Your task to perform on an android device: View the shopping cart on amazon. Add "jbl charge 4" to the cart on amazon Image 0: 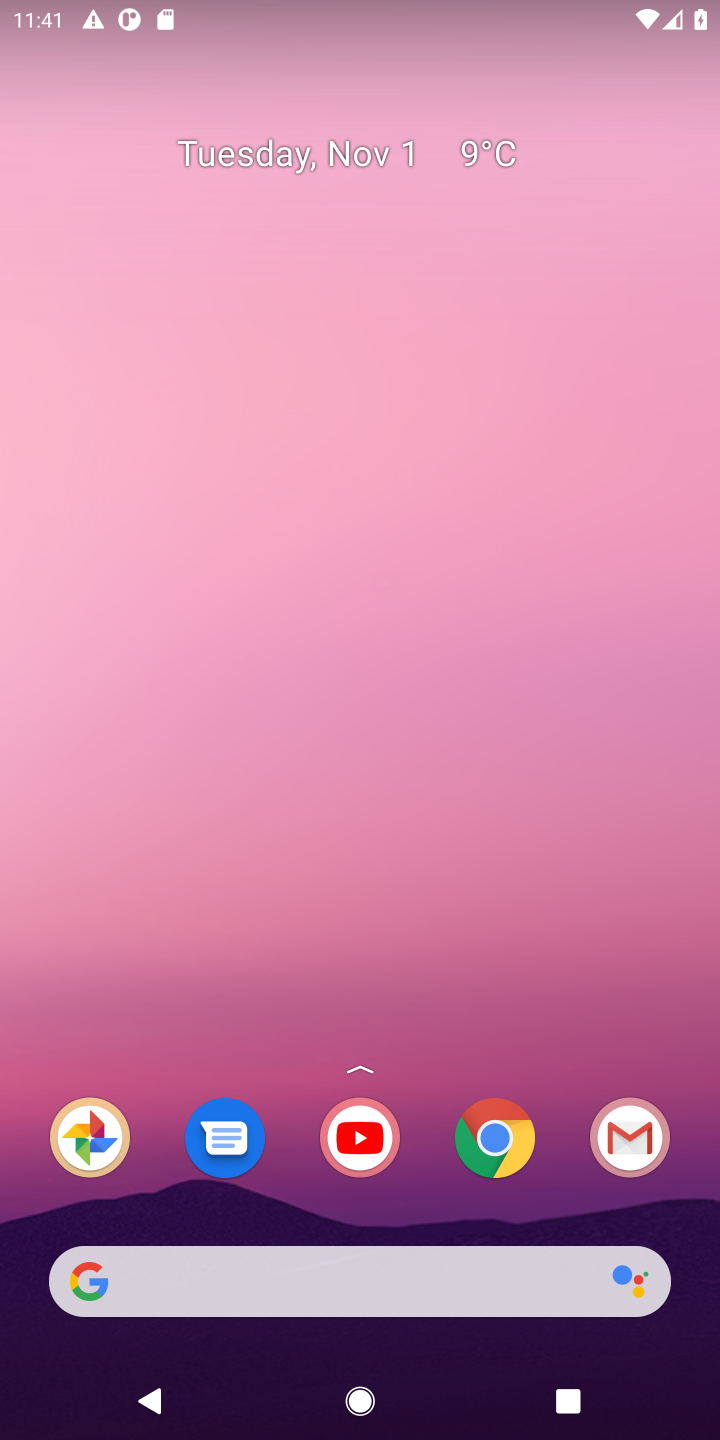
Step 0: click (318, 1279)
Your task to perform on an android device: View the shopping cart on amazon. Add "jbl charge 4" to the cart on amazon Image 1: 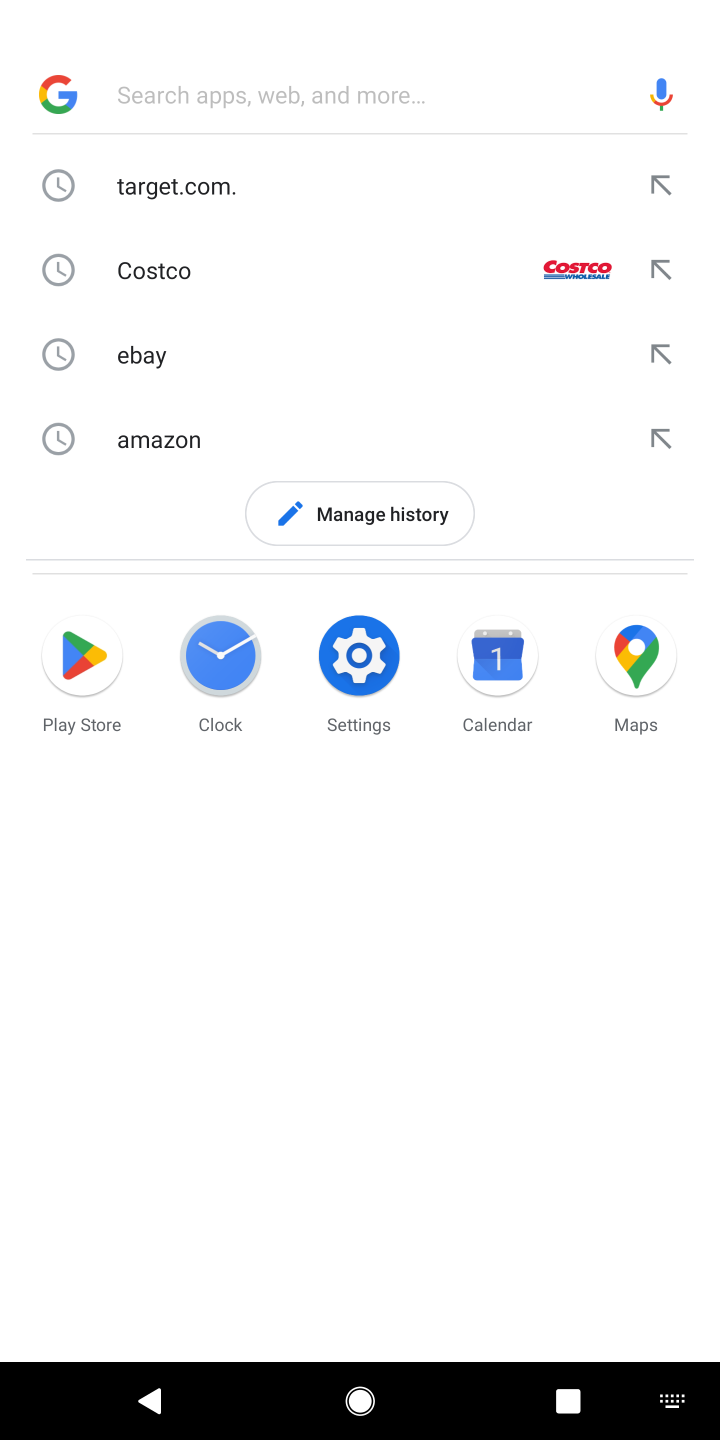
Step 1: type "amazon"
Your task to perform on an android device: View the shopping cart on amazon. Add "jbl charge 4" to the cart on amazon Image 2: 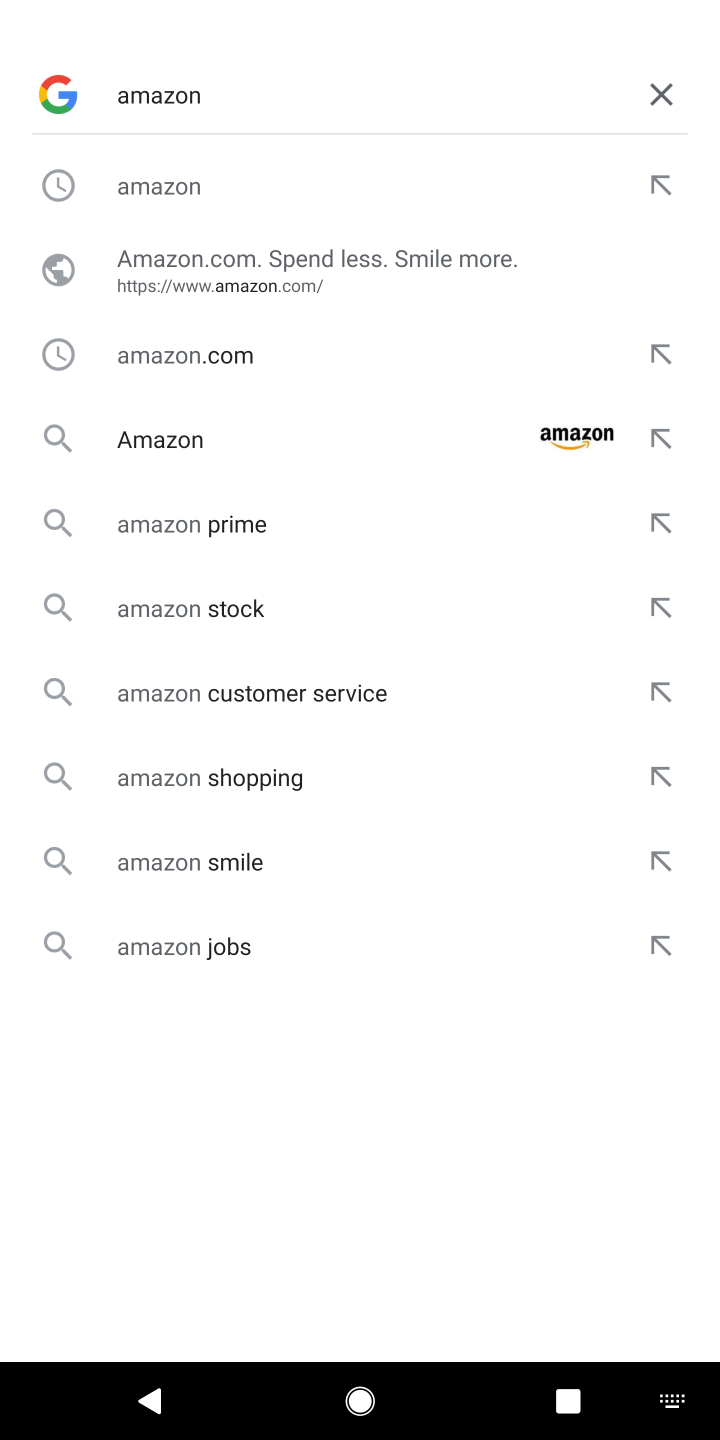
Step 2: click (108, 171)
Your task to perform on an android device: View the shopping cart on amazon. Add "jbl charge 4" to the cart on amazon Image 3: 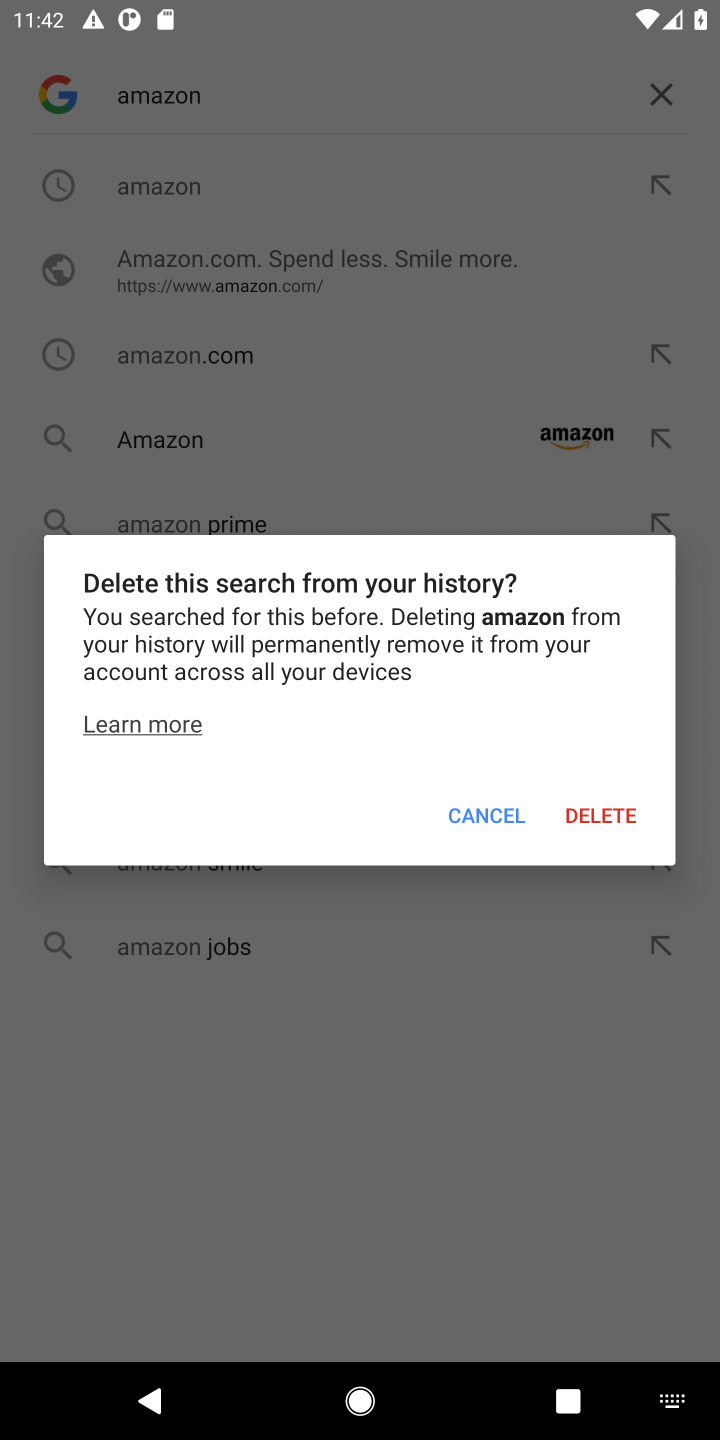
Step 3: click (437, 810)
Your task to perform on an android device: View the shopping cart on amazon. Add "jbl charge 4" to the cart on amazon Image 4: 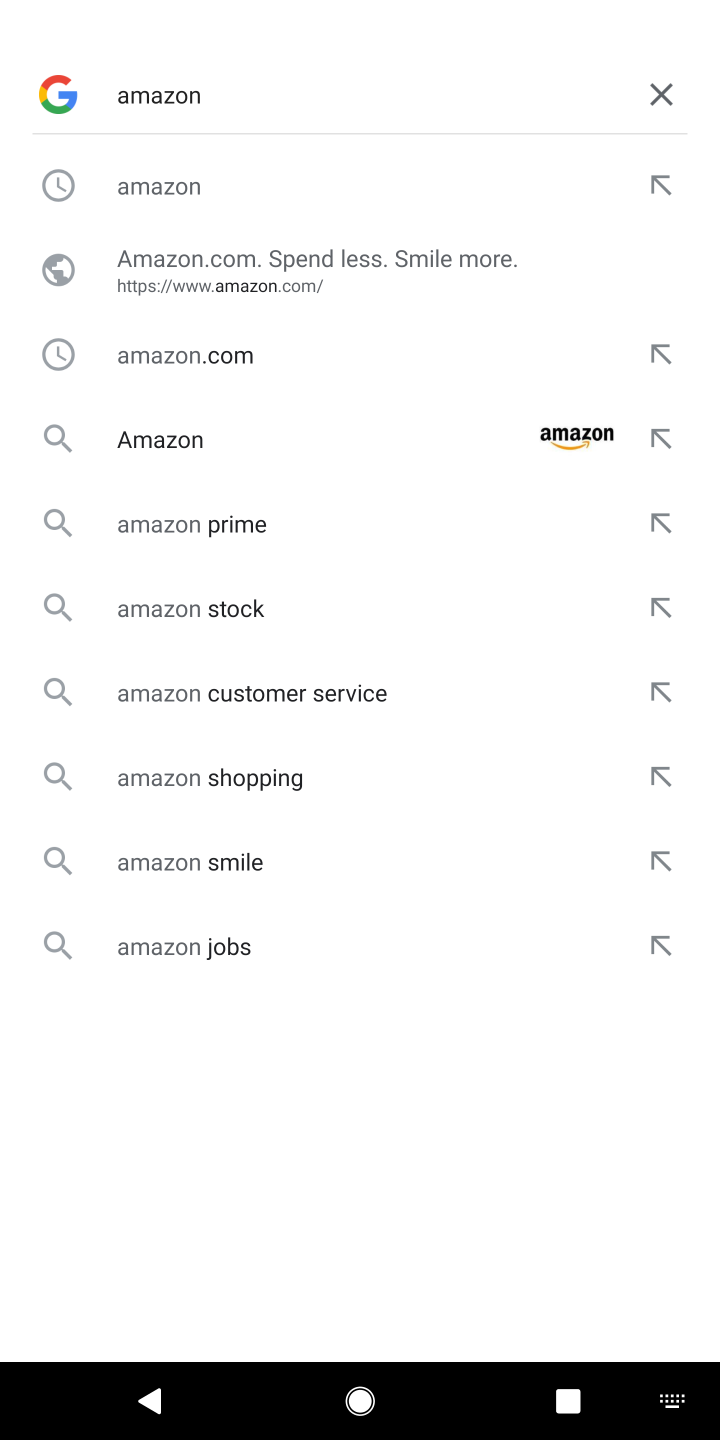
Step 4: click (229, 182)
Your task to perform on an android device: View the shopping cart on amazon. Add "jbl charge 4" to the cart on amazon Image 5: 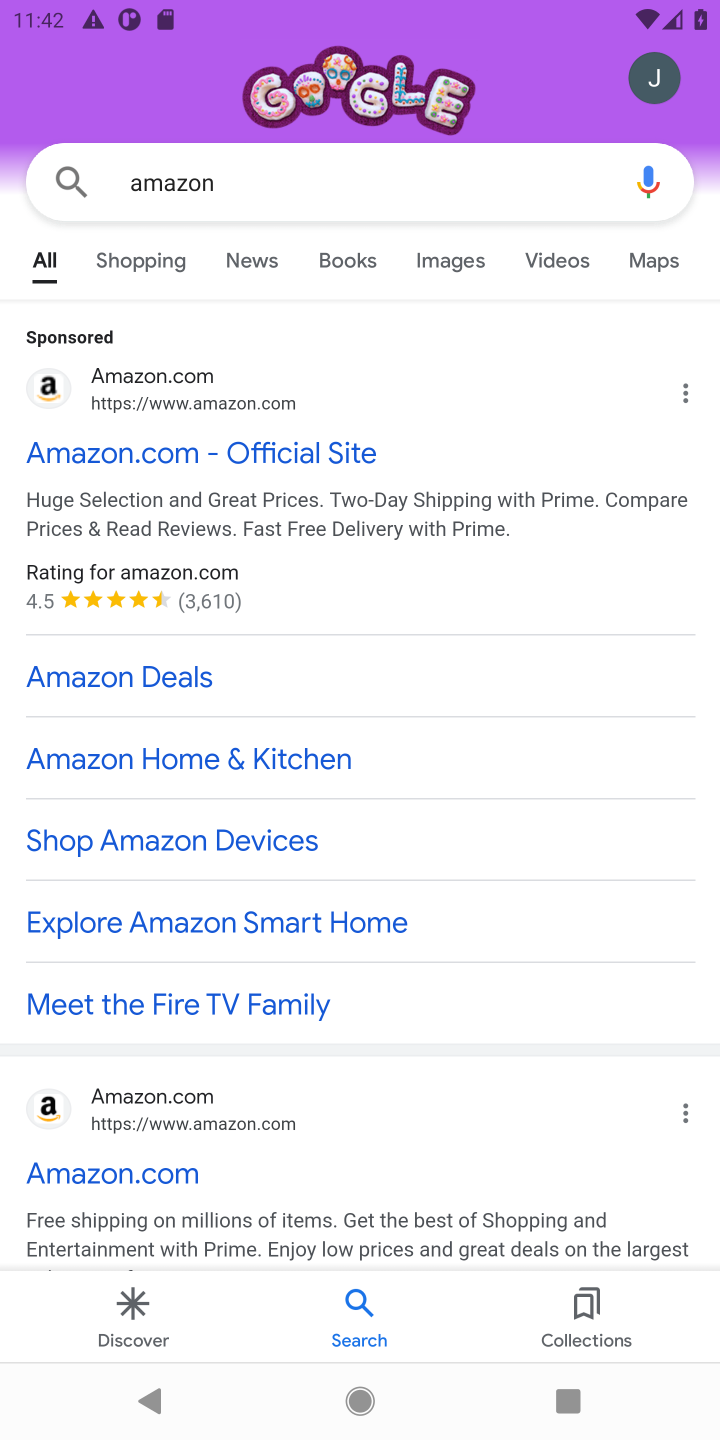
Step 5: click (172, 450)
Your task to perform on an android device: View the shopping cart on amazon. Add "jbl charge 4" to the cart on amazon Image 6: 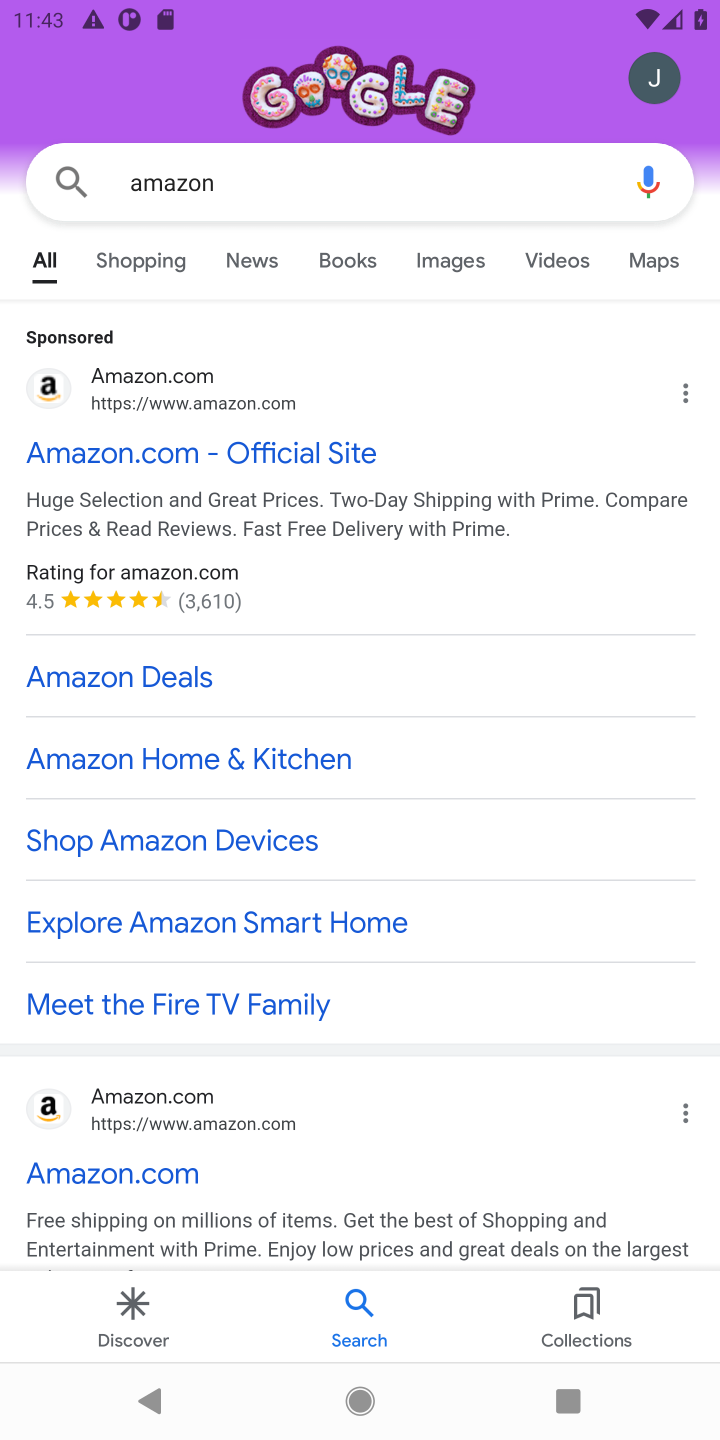
Step 6: click (172, 450)
Your task to perform on an android device: View the shopping cart on amazon. Add "jbl charge 4" to the cart on amazon Image 7: 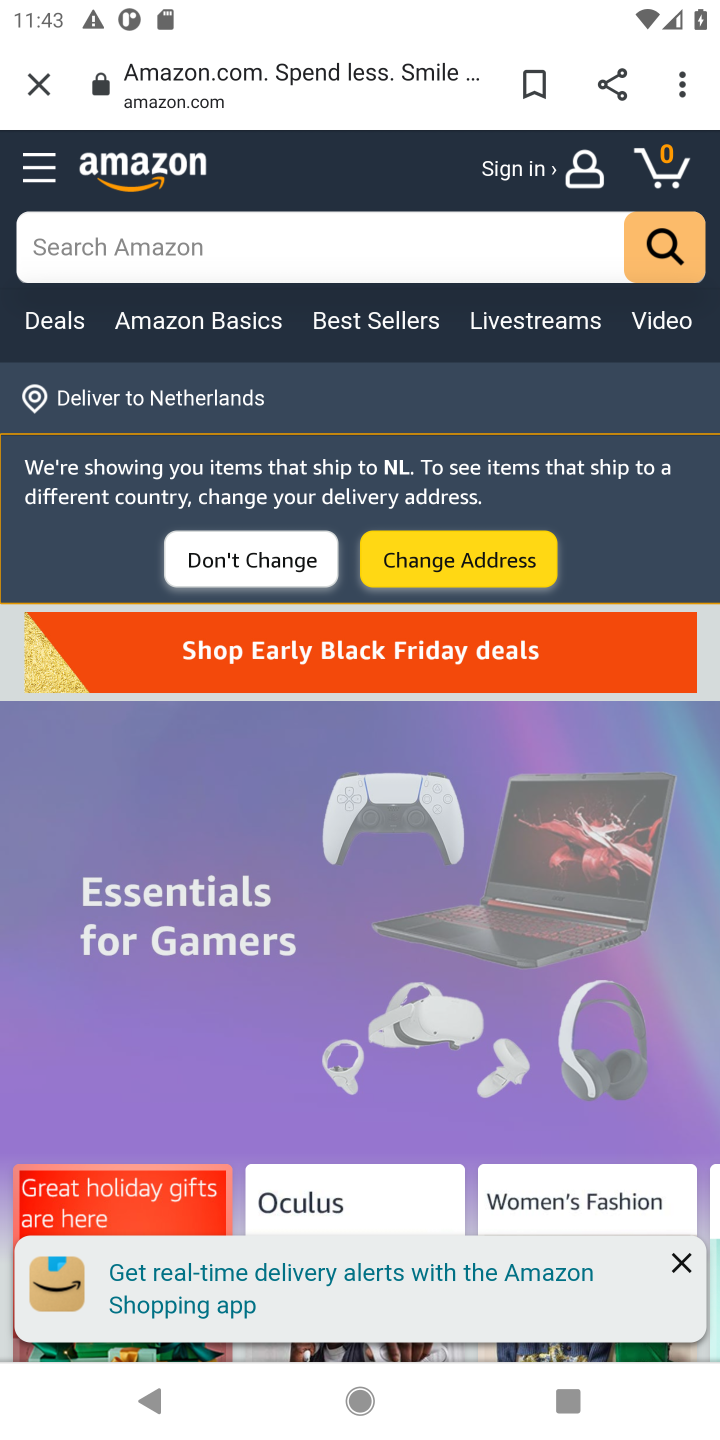
Step 7: click (199, 245)
Your task to perform on an android device: View the shopping cart on amazon. Add "jbl charge 4" to the cart on amazon Image 8: 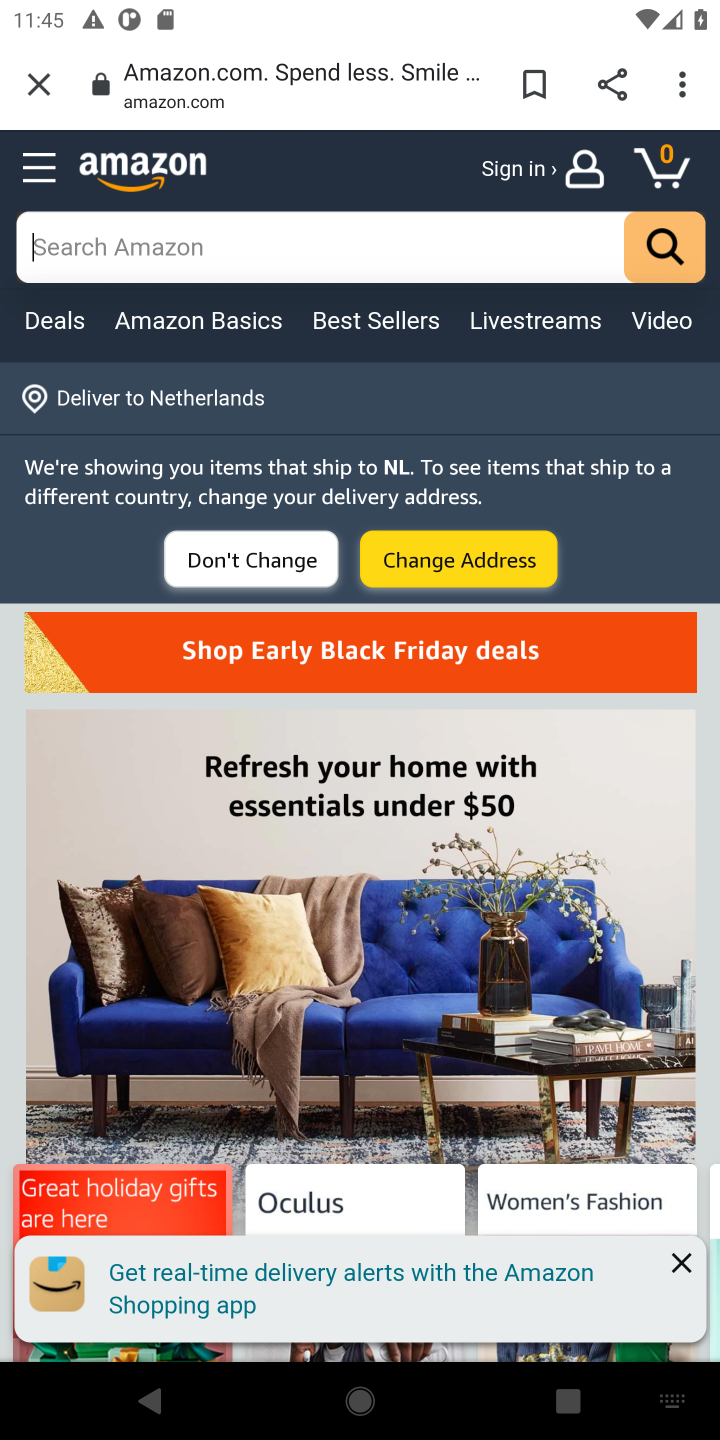
Step 8: type "jbl charge 4"
Your task to perform on an android device: View the shopping cart on amazon. Add "jbl charge 4" to the cart on amazon Image 9: 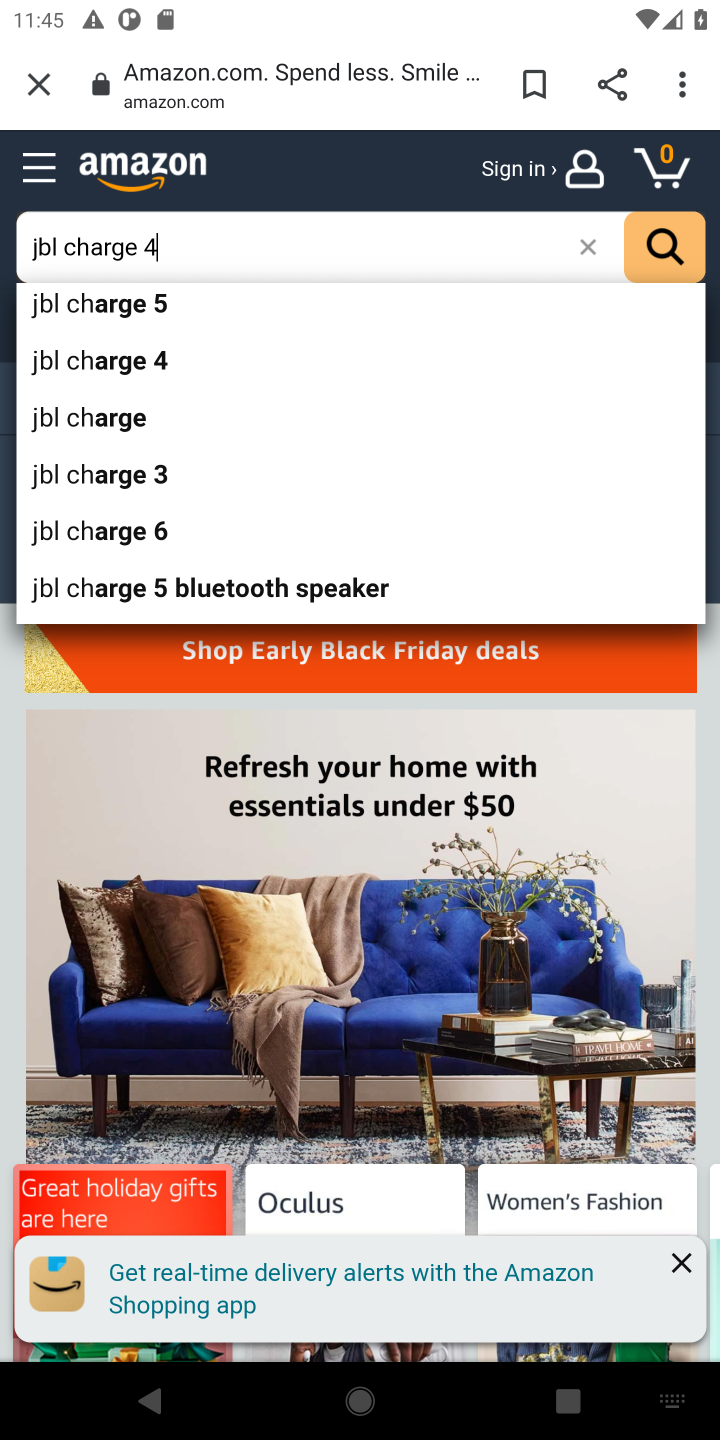
Step 9: type ""
Your task to perform on an android device: View the shopping cart on amazon. Add "jbl charge 4" to the cart on amazon Image 10: 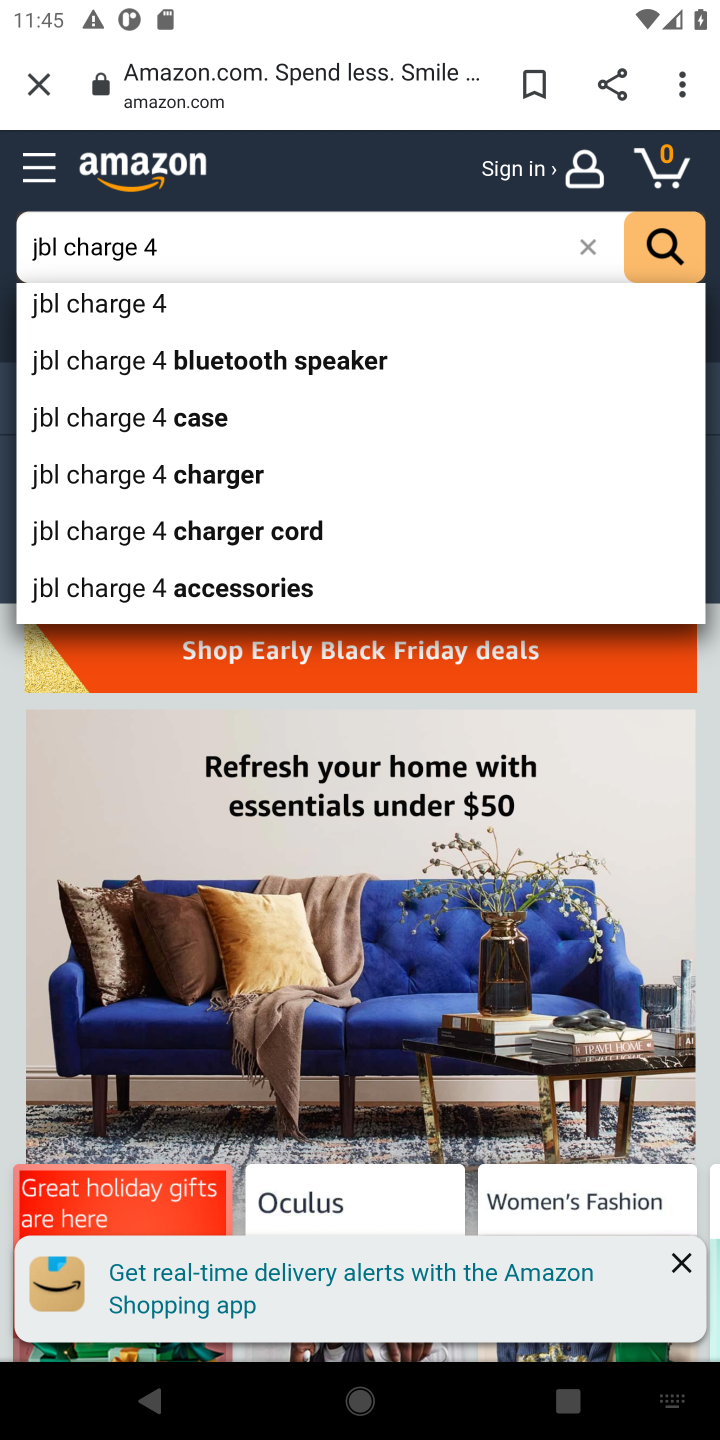
Step 10: click (152, 322)
Your task to perform on an android device: View the shopping cart on amazon. Add "jbl charge 4" to the cart on amazon Image 11: 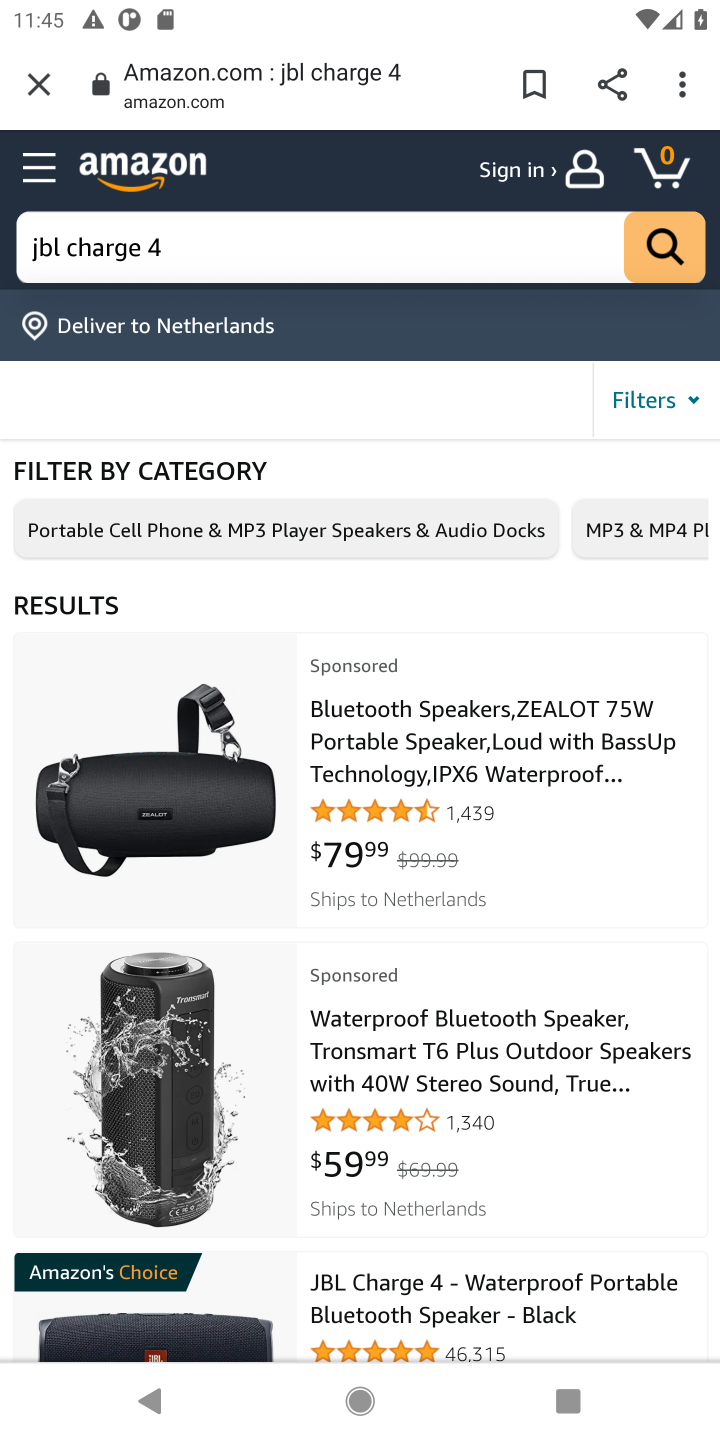
Step 11: click (538, 1305)
Your task to perform on an android device: View the shopping cart on amazon. Add "jbl charge 4" to the cart on amazon Image 12: 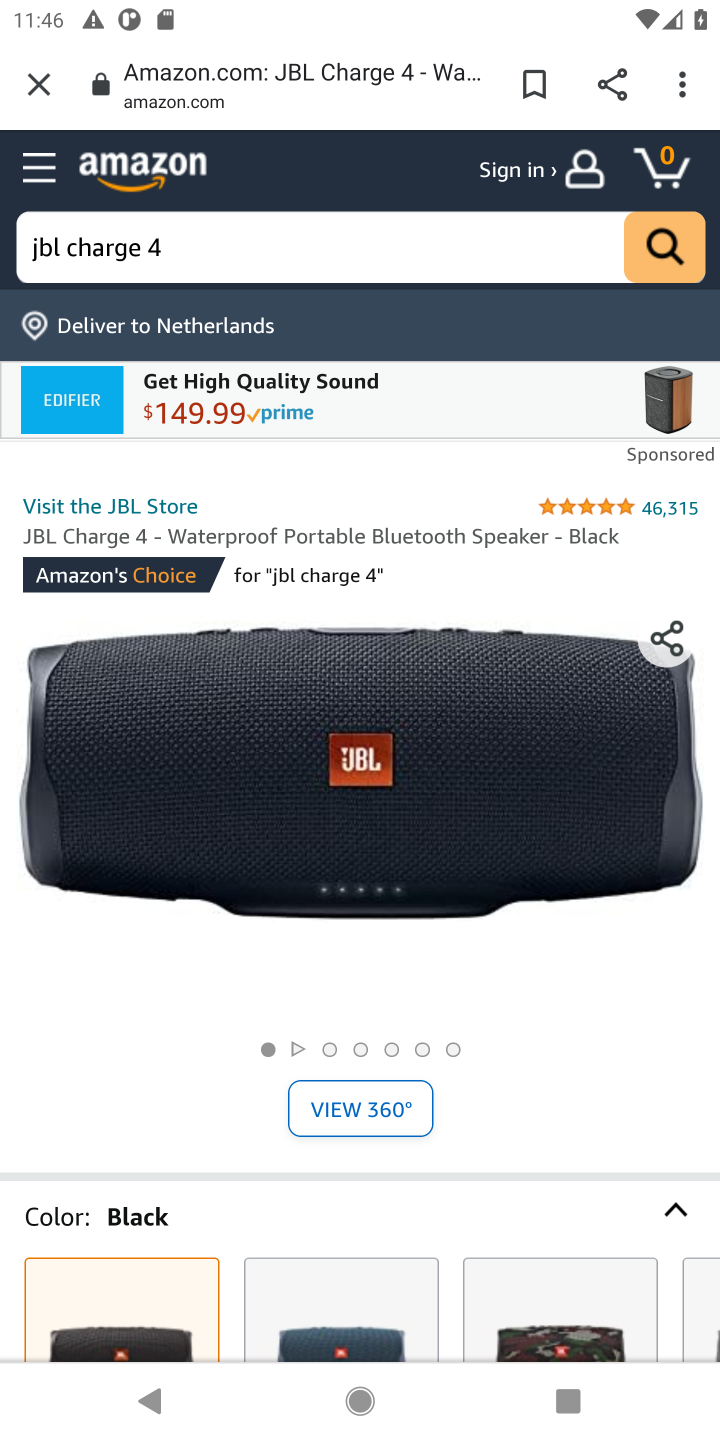
Step 12: drag from (463, 1168) to (482, 487)
Your task to perform on an android device: View the shopping cart on amazon. Add "jbl charge 4" to the cart on amazon Image 13: 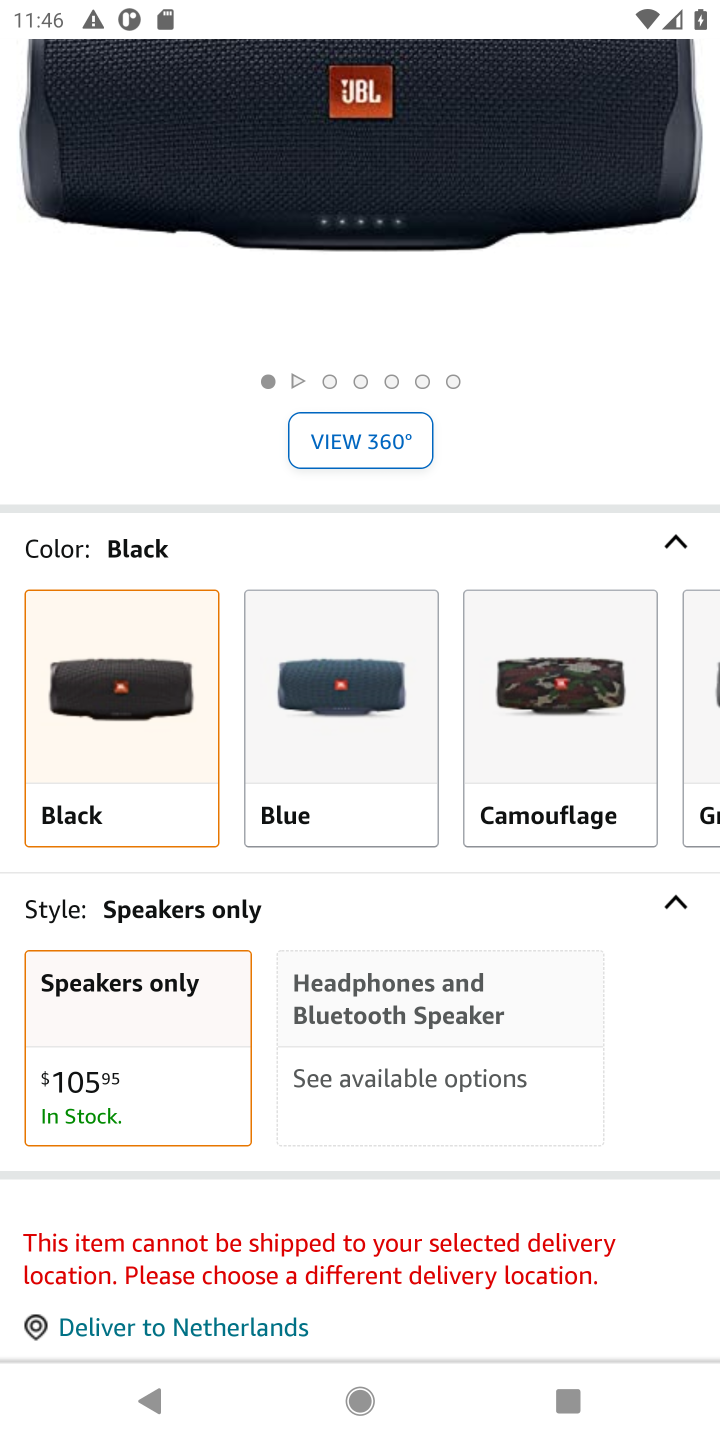
Step 13: drag from (463, 1099) to (509, 432)
Your task to perform on an android device: View the shopping cart on amazon. Add "jbl charge 4" to the cart on amazon Image 14: 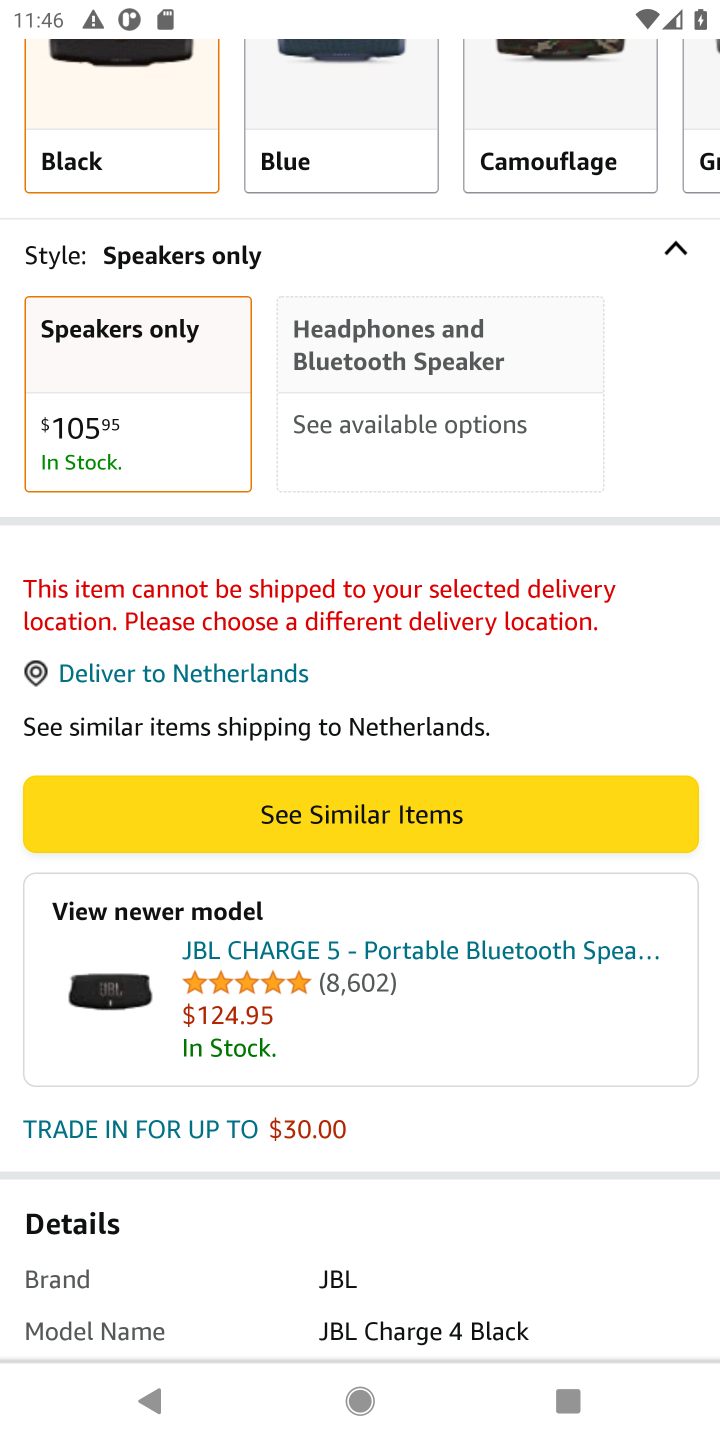
Step 14: click (397, 813)
Your task to perform on an android device: View the shopping cart on amazon. Add "jbl charge 4" to the cart on amazon Image 15: 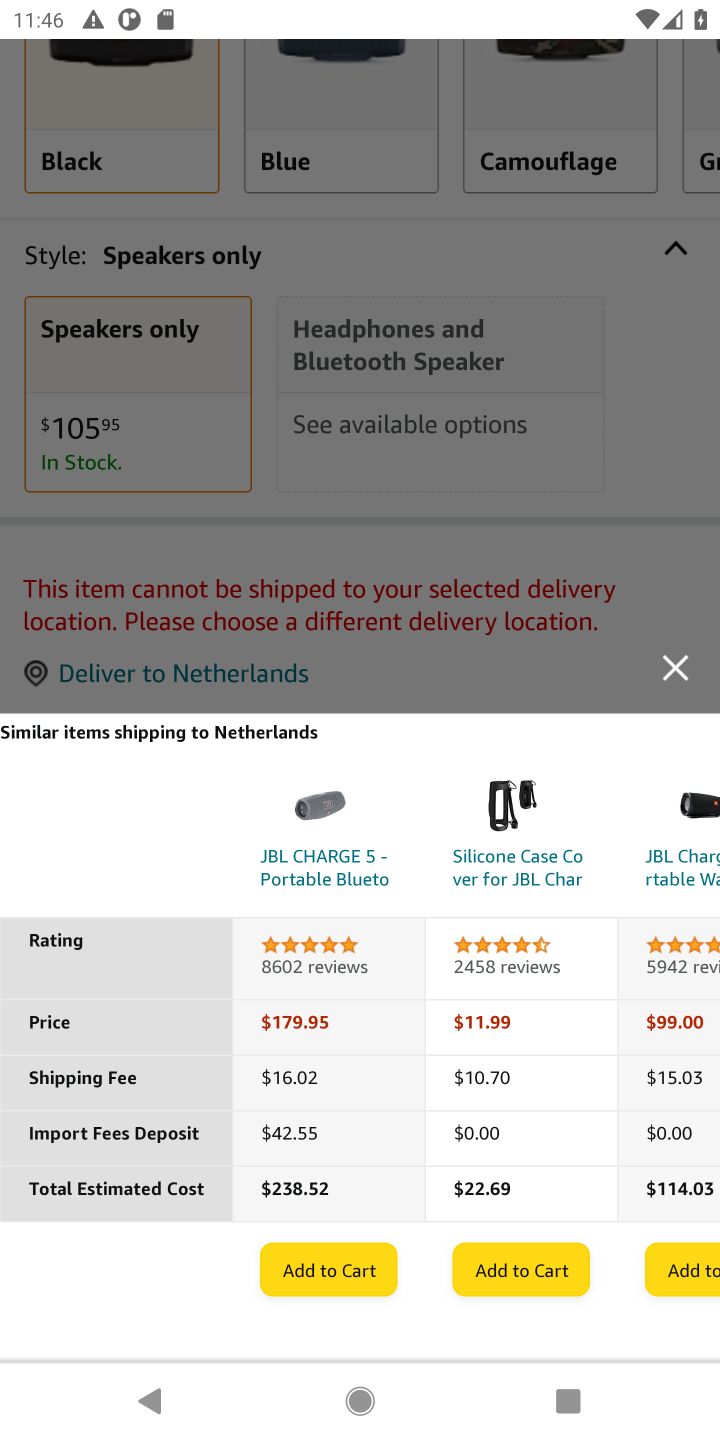
Step 15: drag from (415, 818) to (405, 545)
Your task to perform on an android device: View the shopping cart on amazon. Add "jbl charge 4" to the cart on amazon Image 16: 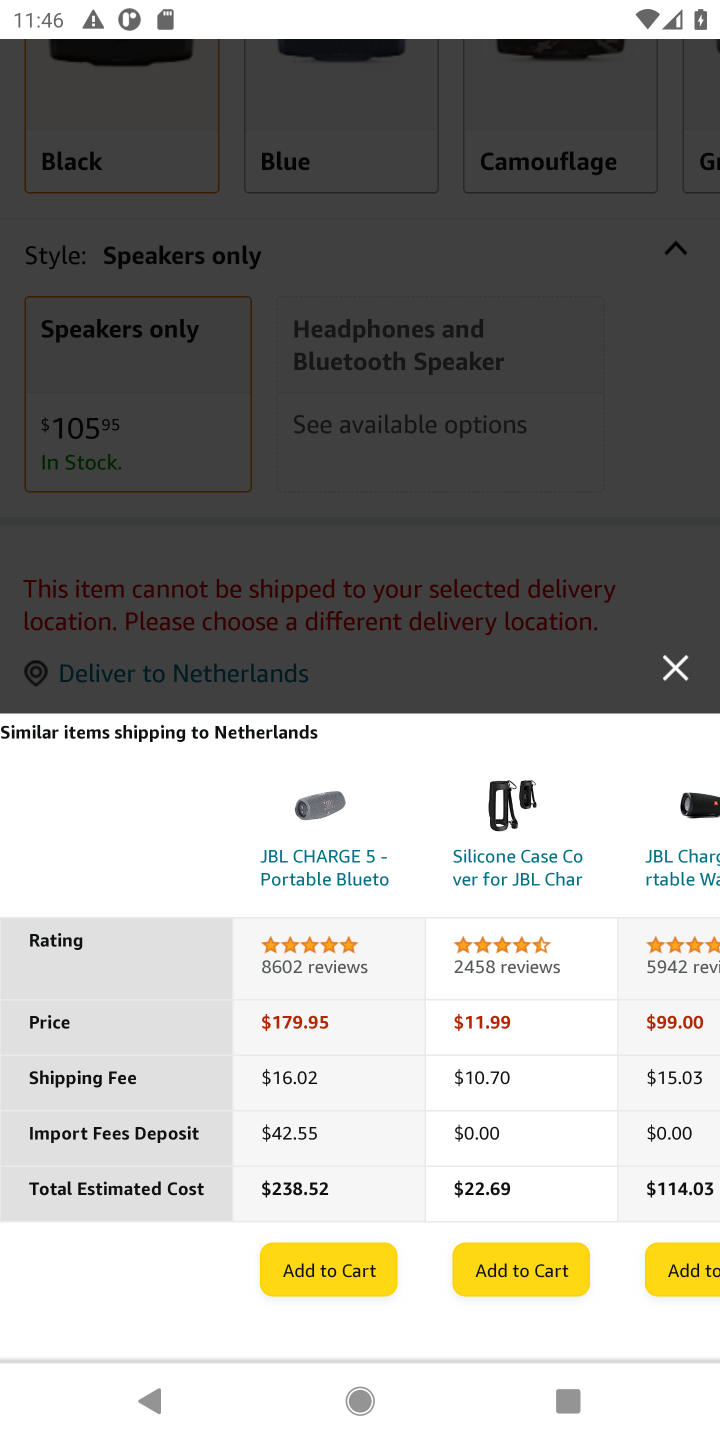
Step 16: click (673, 663)
Your task to perform on an android device: View the shopping cart on amazon. Add "jbl charge 4" to the cart on amazon Image 17: 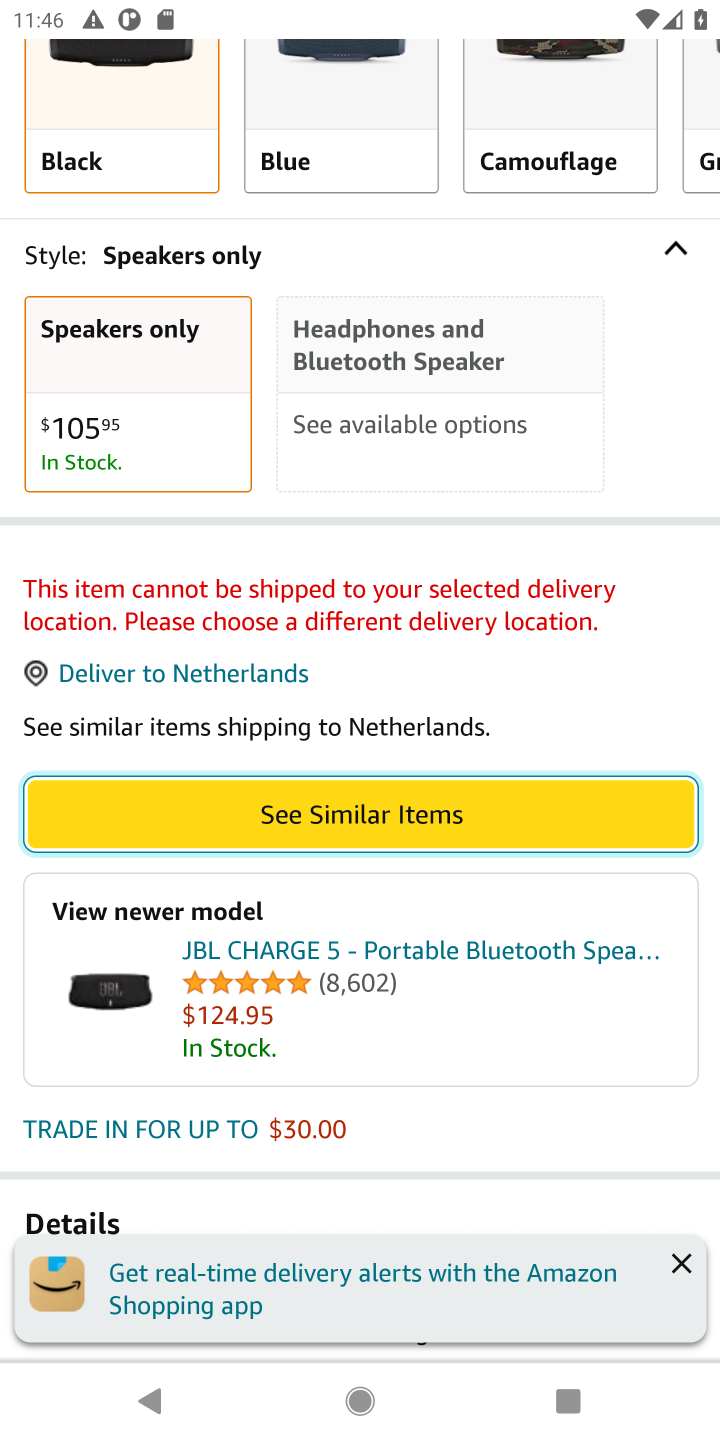
Step 17: task complete